Your task to perform on an android device: Search for Italian restaurants on Maps Image 0: 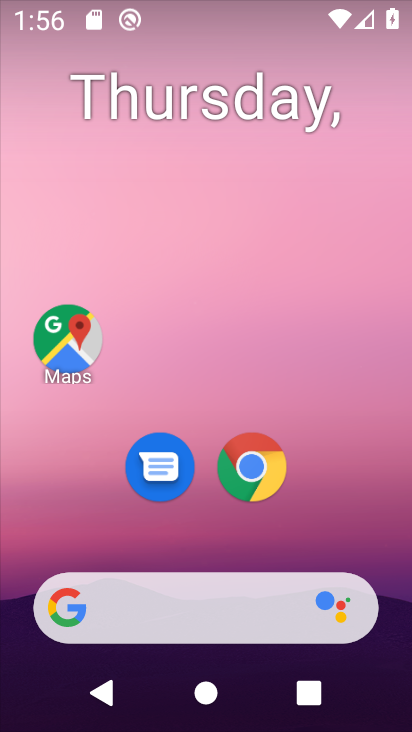
Step 0: click (73, 355)
Your task to perform on an android device: Search for Italian restaurants on Maps Image 1: 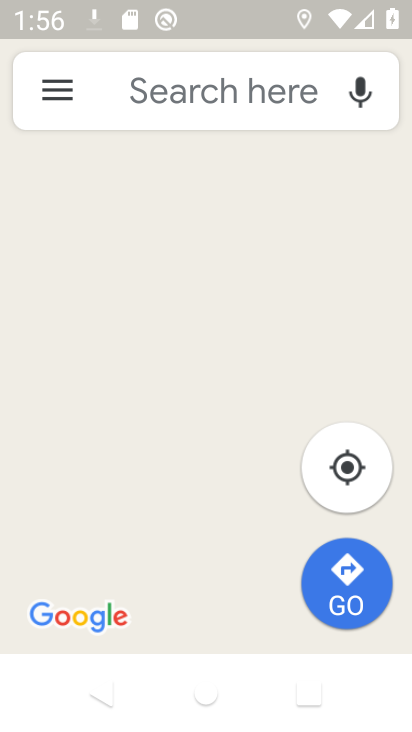
Step 1: click (162, 95)
Your task to perform on an android device: Search for Italian restaurants on Maps Image 2: 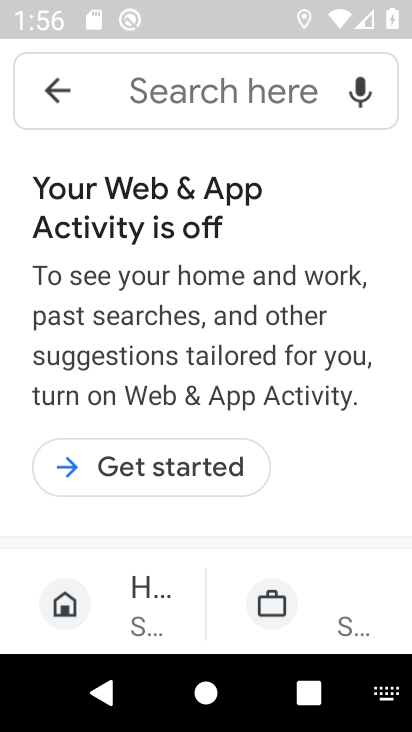
Step 2: click (180, 486)
Your task to perform on an android device: Search for Italian restaurants on Maps Image 3: 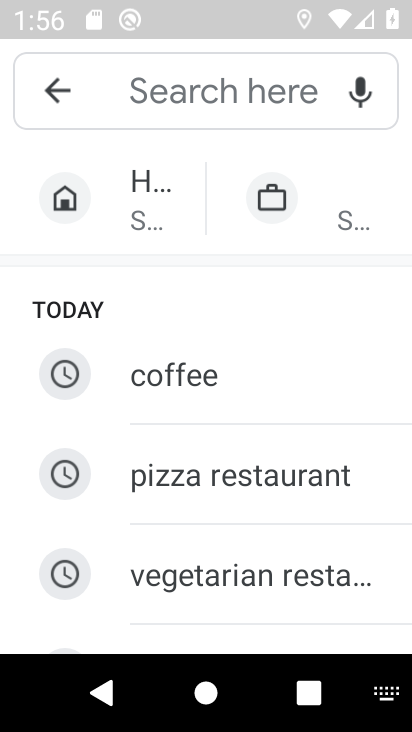
Step 3: drag from (233, 544) to (187, 268)
Your task to perform on an android device: Search for Italian restaurants on Maps Image 4: 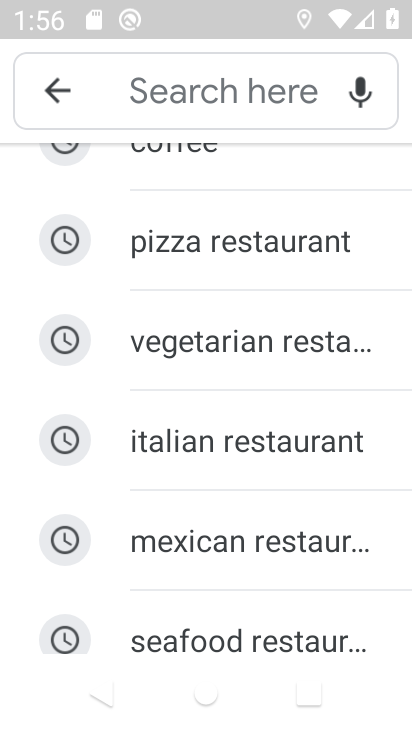
Step 4: click (203, 457)
Your task to perform on an android device: Search for Italian restaurants on Maps Image 5: 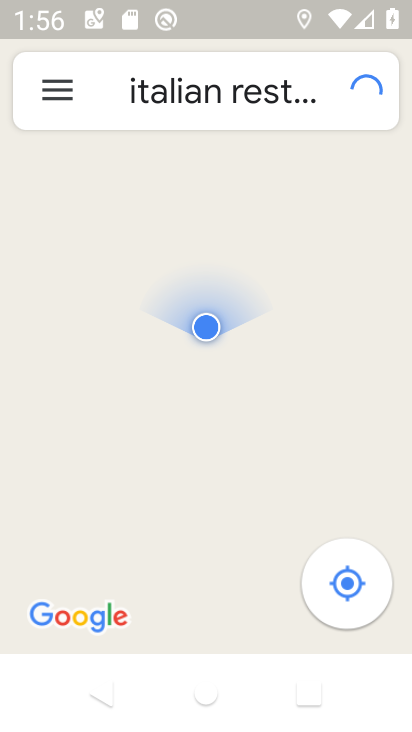
Step 5: task complete